Your task to perform on an android device: turn off priority inbox in the gmail app Image 0: 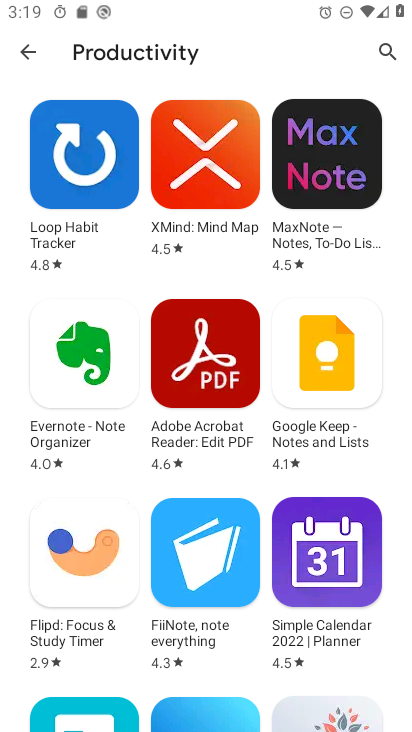
Step 0: press home button
Your task to perform on an android device: turn off priority inbox in the gmail app Image 1: 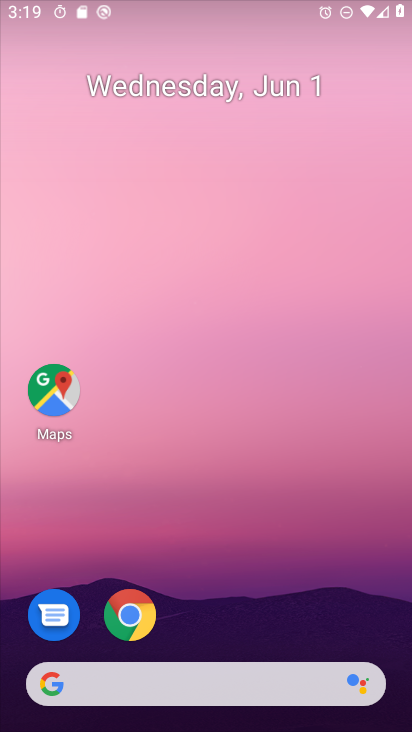
Step 1: drag from (271, 676) to (270, 4)
Your task to perform on an android device: turn off priority inbox in the gmail app Image 2: 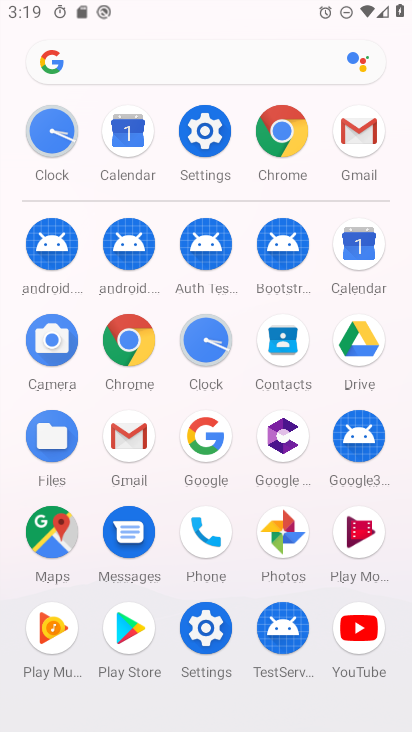
Step 2: click (138, 443)
Your task to perform on an android device: turn off priority inbox in the gmail app Image 3: 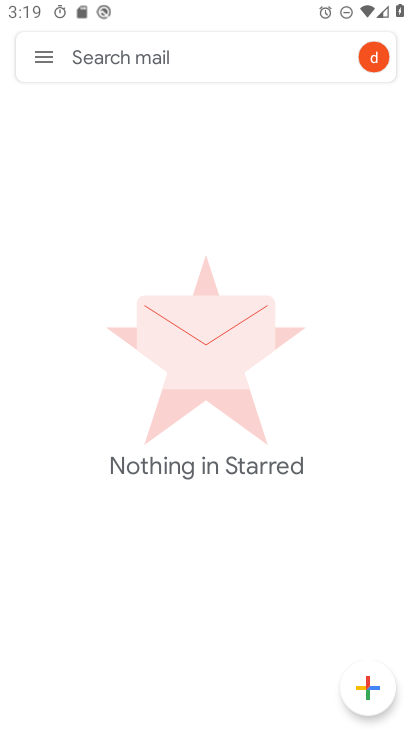
Step 3: click (49, 54)
Your task to perform on an android device: turn off priority inbox in the gmail app Image 4: 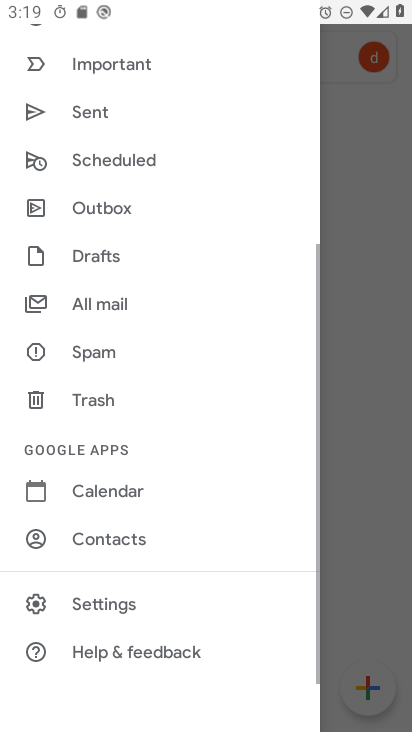
Step 4: click (137, 609)
Your task to perform on an android device: turn off priority inbox in the gmail app Image 5: 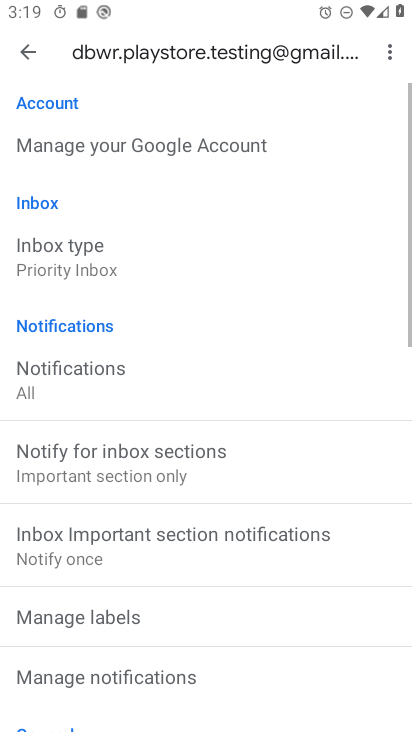
Step 5: click (116, 264)
Your task to perform on an android device: turn off priority inbox in the gmail app Image 6: 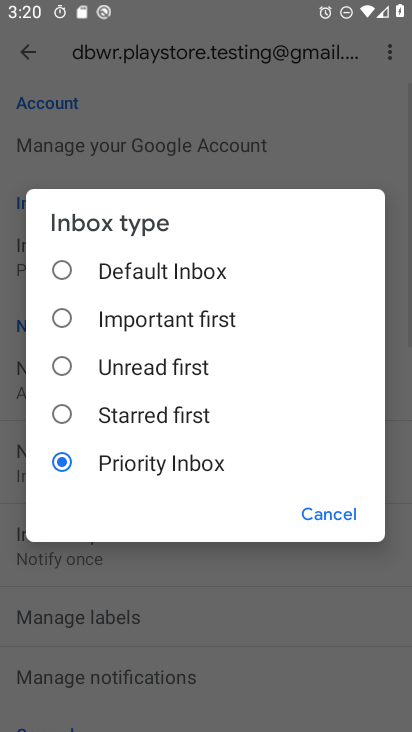
Step 6: click (59, 267)
Your task to perform on an android device: turn off priority inbox in the gmail app Image 7: 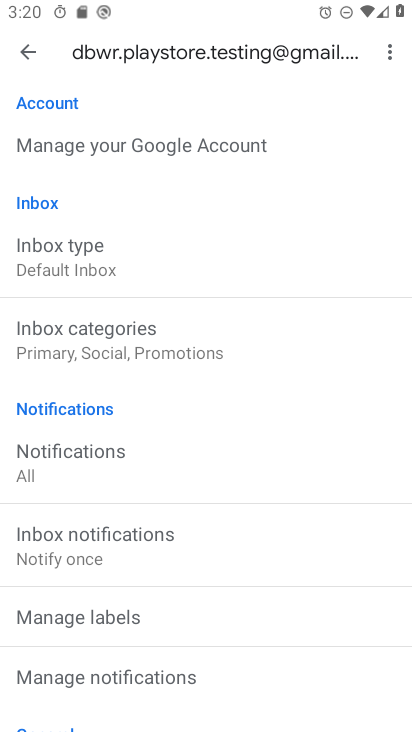
Step 7: task complete